Your task to perform on an android device: change notifications settings Image 0: 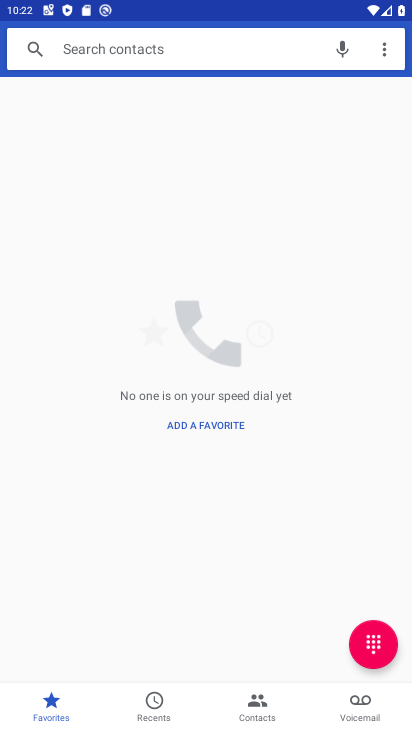
Step 0: press home button
Your task to perform on an android device: change notifications settings Image 1: 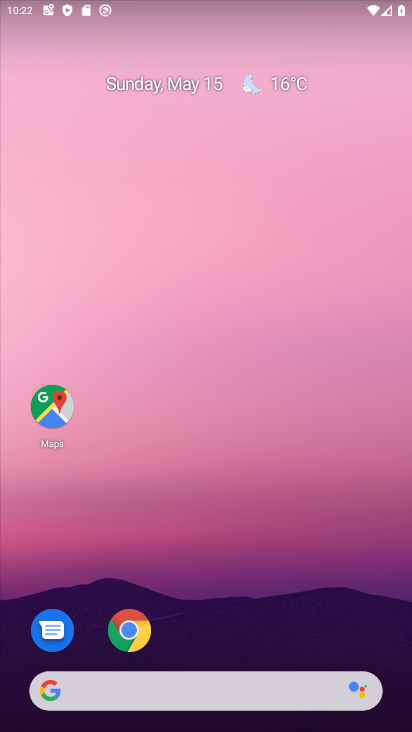
Step 1: drag from (246, 621) to (245, 123)
Your task to perform on an android device: change notifications settings Image 2: 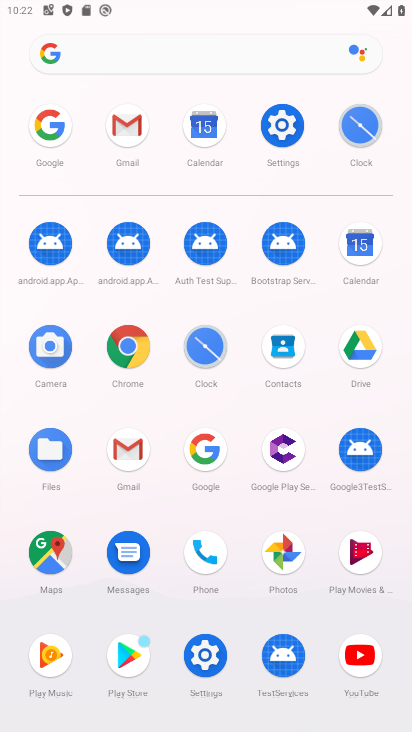
Step 2: click (266, 127)
Your task to perform on an android device: change notifications settings Image 3: 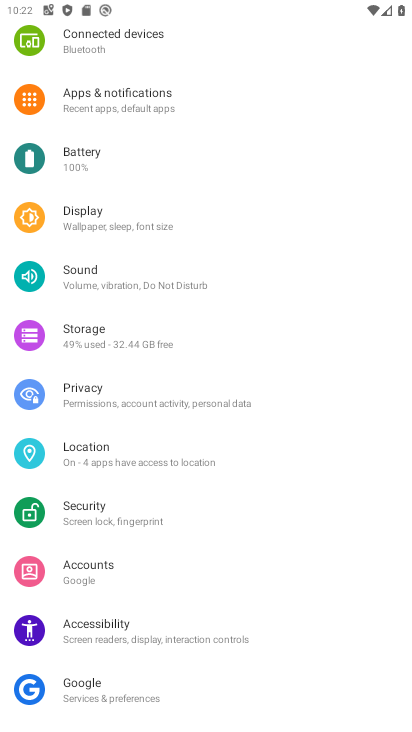
Step 3: click (149, 110)
Your task to perform on an android device: change notifications settings Image 4: 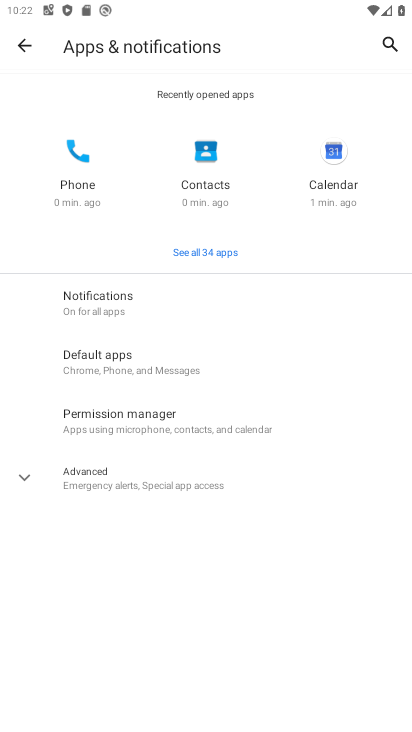
Step 4: click (151, 301)
Your task to perform on an android device: change notifications settings Image 5: 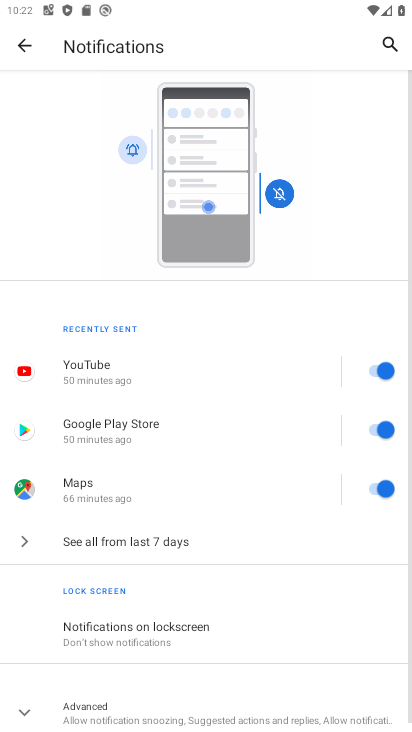
Step 5: drag from (208, 607) to (238, 391)
Your task to perform on an android device: change notifications settings Image 6: 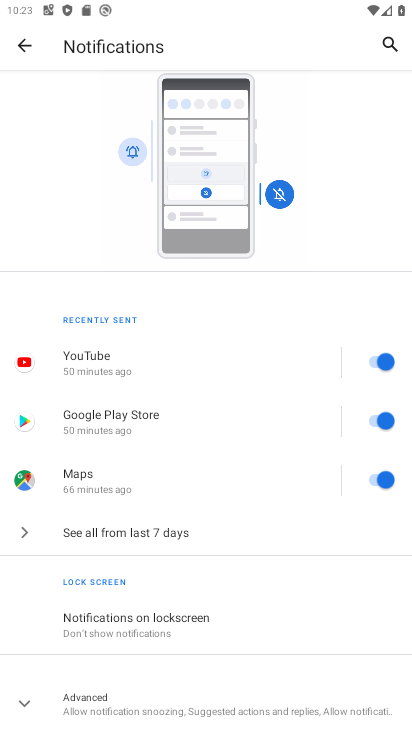
Step 6: drag from (212, 698) to (240, 537)
Your task to perform on an android device: change notifications settings Image 7: 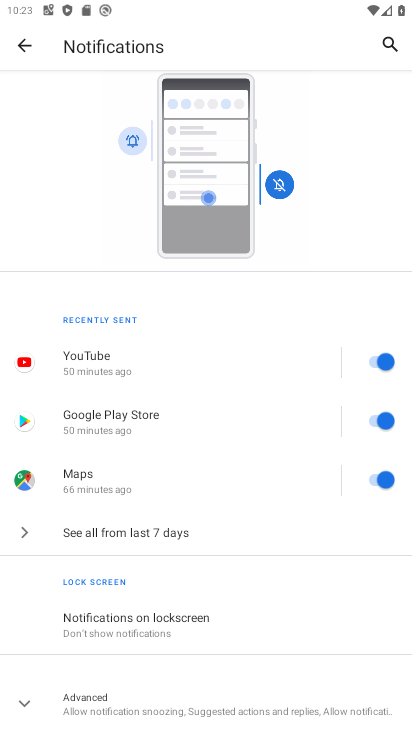
Step 7: click (114, 698)
Your task to perform on an android device: change notifications settings Image 8: 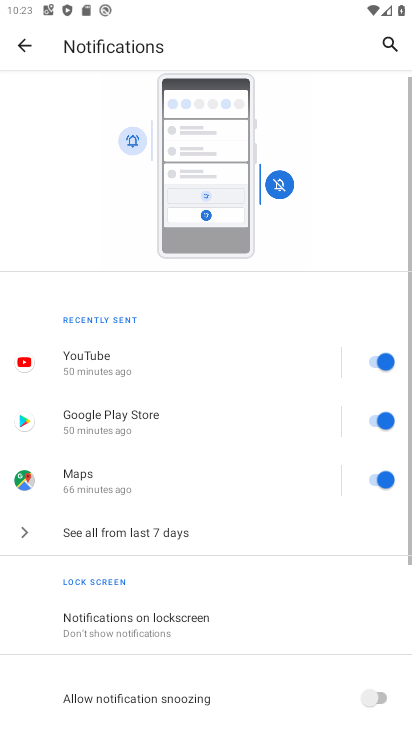
Step 8: drag from (200, 650) to (275, 341)
Your task to perform on an android device: change notifications settings Image 9: 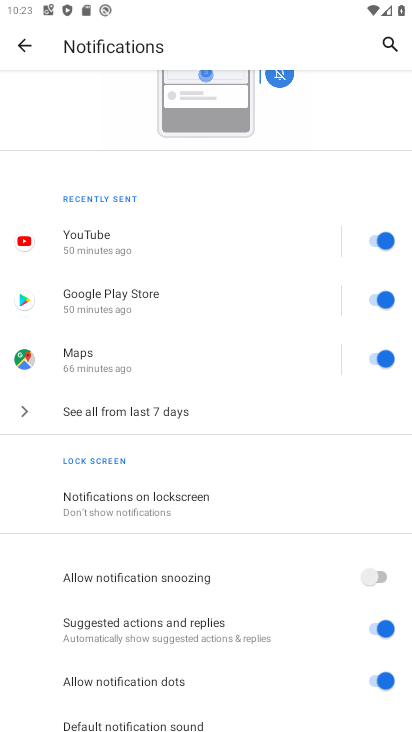
Step 9: drag from (295, 288) to (357, 516)
Your task to perform on an android device: change notifications settings Image 10: 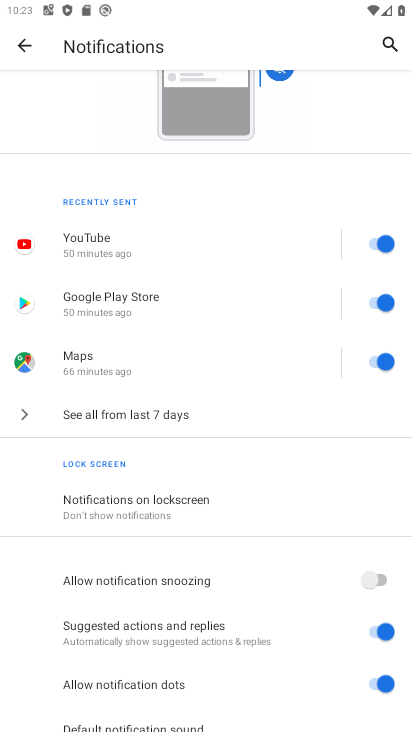
Step 10: click (188, 496)
Your task to perform on an android device: change notifications settings Image 11: 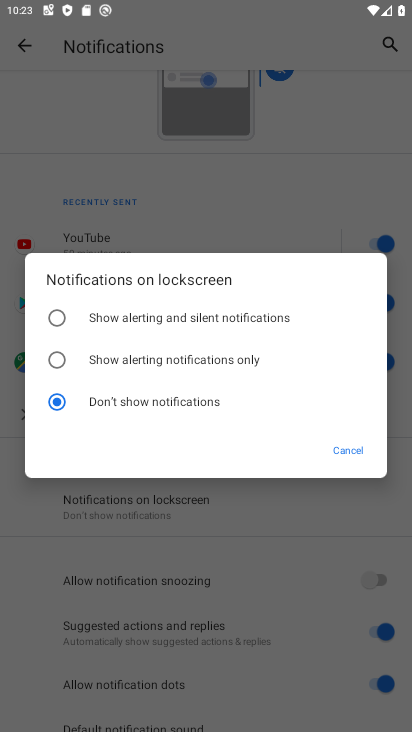
Step 11: click (251, 317)
Your task to perform on an android device: change notifications settings Image 12: 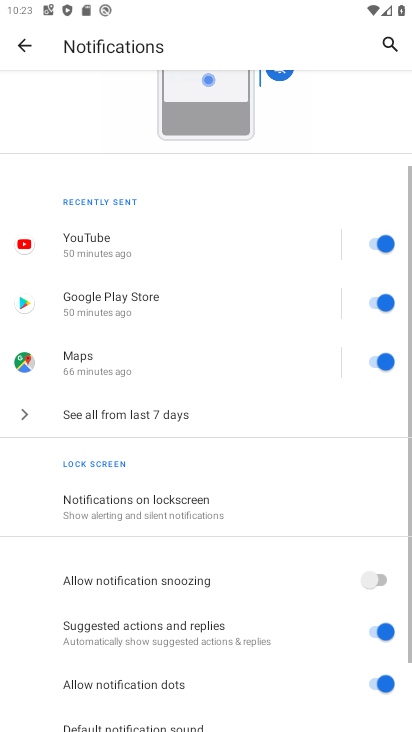
Step 12: task complete